Your task to perform on an android device: Open calendar and show me the first week of next month Image 0: 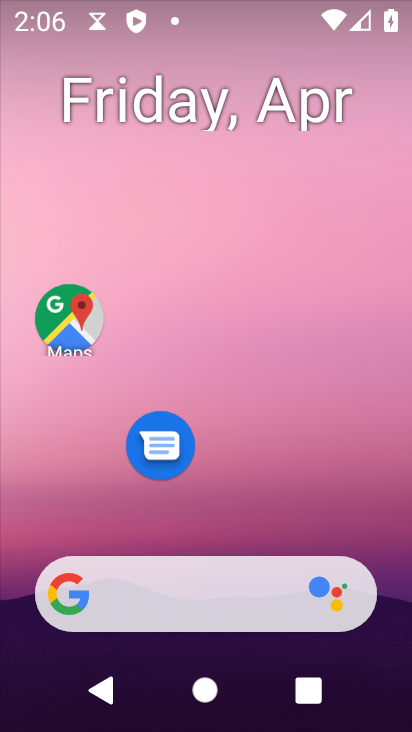
Step 0: drag from (235, 520) to (237, 108)
Your task to perform on an android device: Open calendar and show me the first week of next month Image 1: 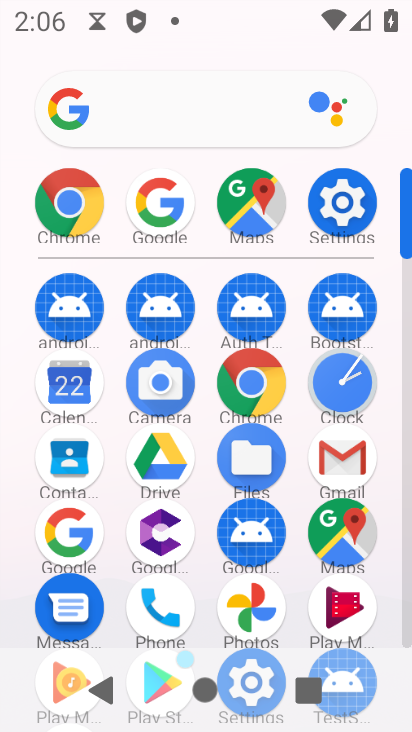
Step 1: click (74, 376)
Your task to perform on an android device: Open calendar and show me the first week of next month Image 2: 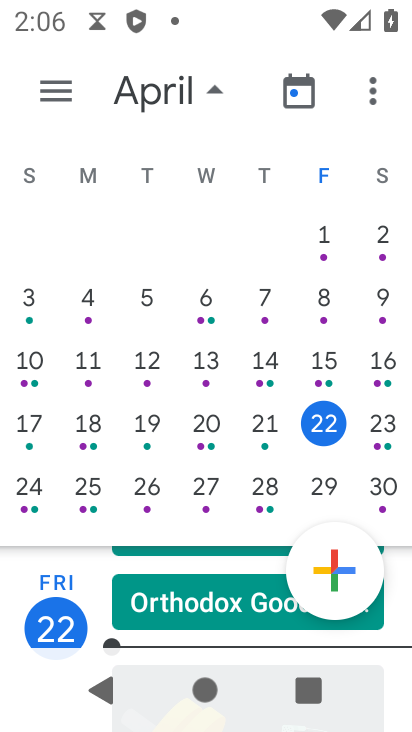
Step 2: task complete